Your task to perform on an android device: Open maps Image 0: 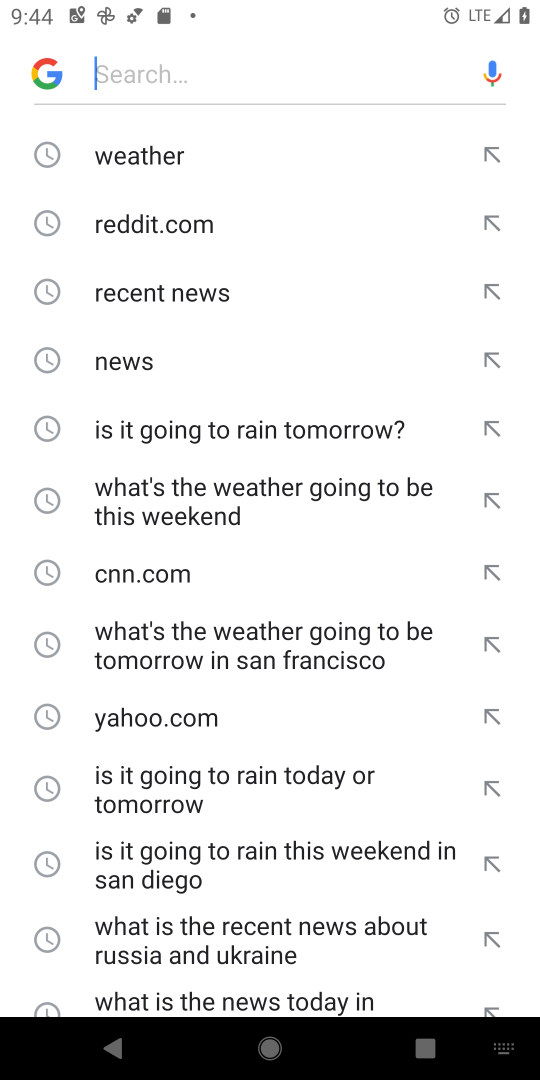
Step 0: press home button
Your task to perform on an android device: Open maps Image 1: 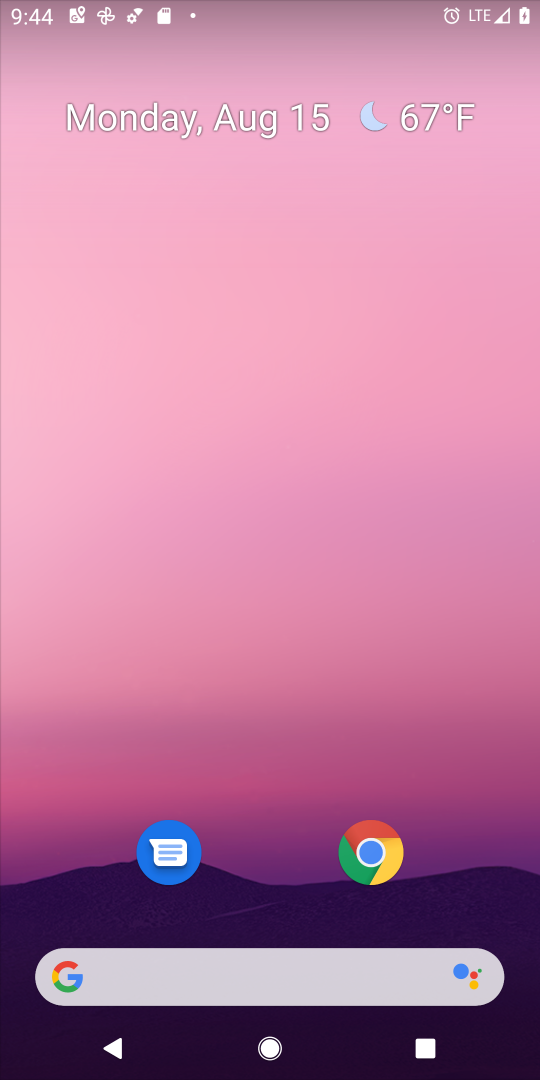
Step 1: drag from (244, 970) to (342, 172)
Your task to perform on an android device: Open maps Image 2: 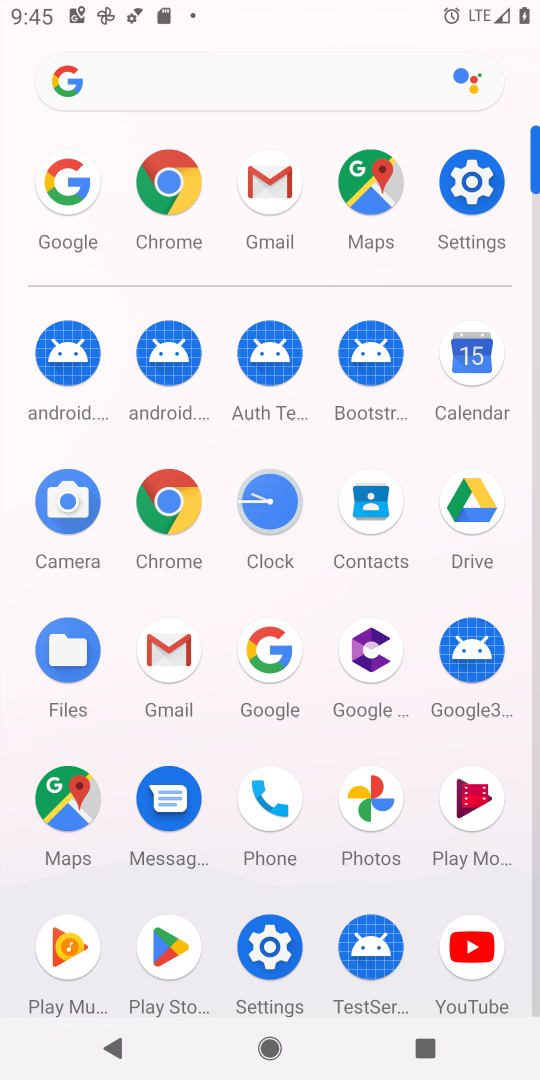
Step 2: click (368, 188)
Your task to perform on an android device: Open maps Image 3: 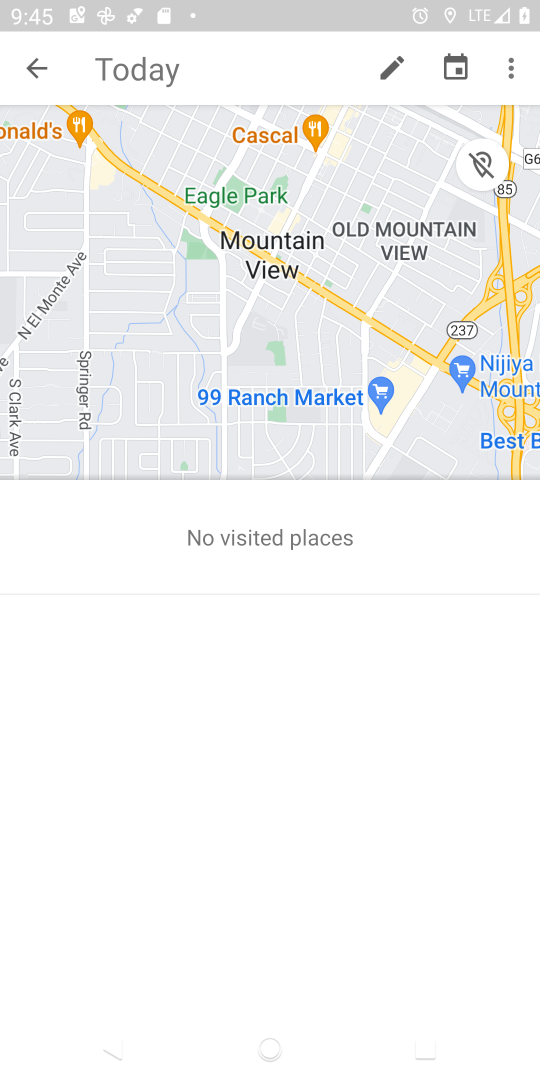
Step 3: task complete